Your task to perform on an android device: change the clock display to analog Image 0: 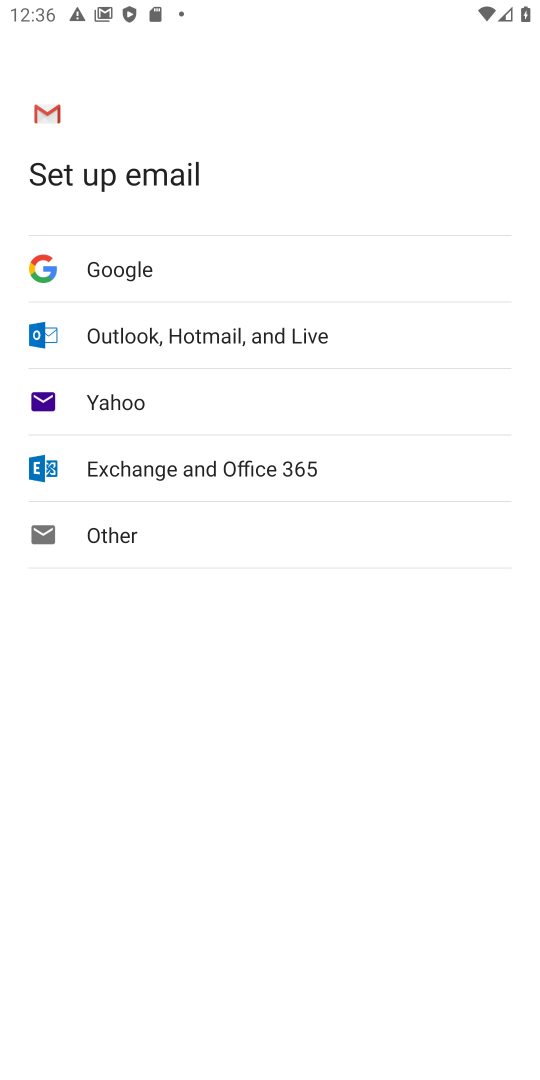
Step 0: press home button
Your task to perform on an android device: change the clock display to analog Image 1: 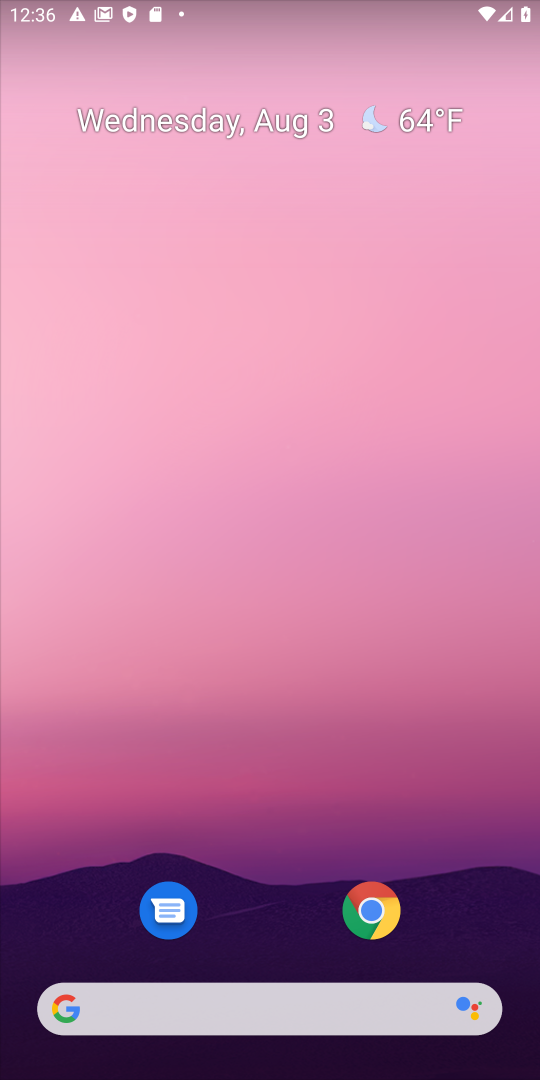
Step 1: drag from (288, 1002) to (397, 12)
Your task to perform on an android device: change the clock display to analog Image 2: 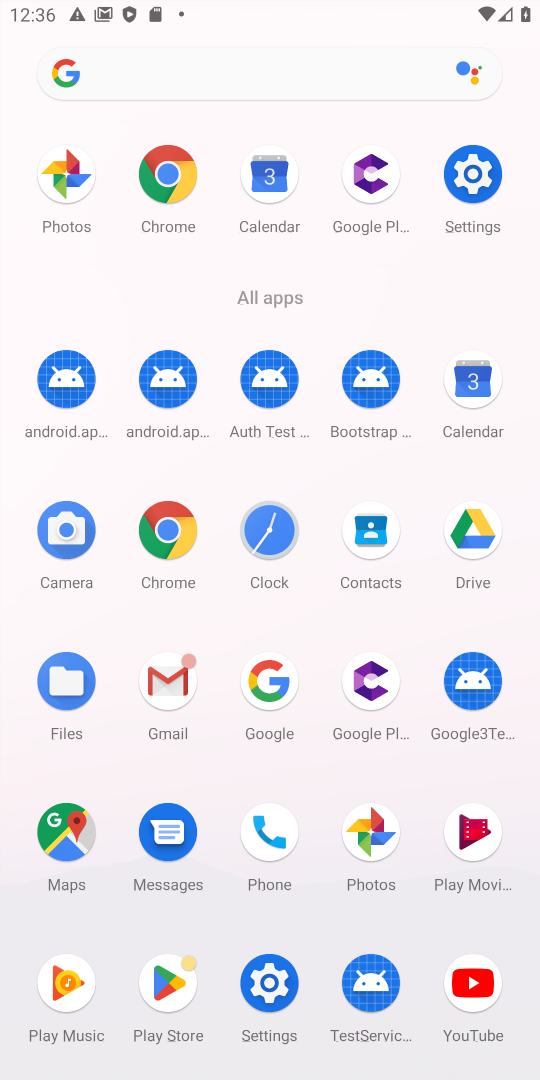
Step 2: click (267, 516)
Your task to perform on an android device: change the clock display to analog Image 3: 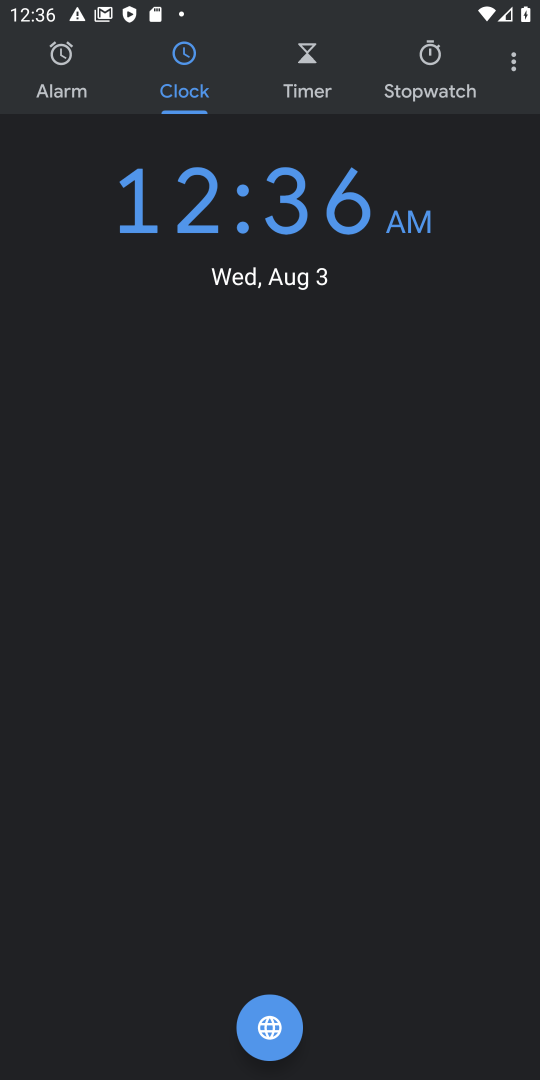
Step 3: click (514, 61)
Your task to perform on an android device: change the clock display to analog Image 4: 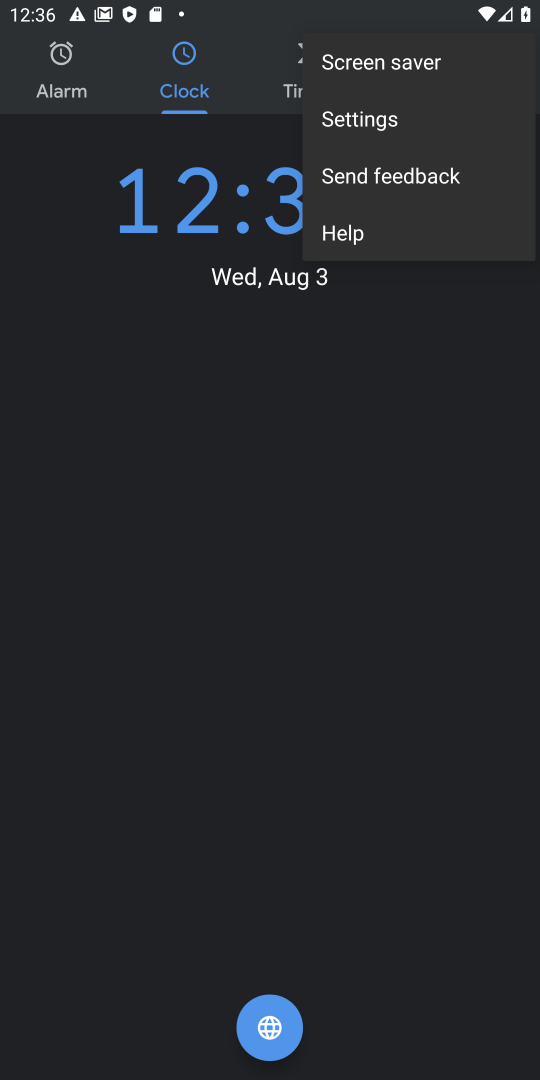
Step 4: click (381, 123)
Your task to perform on an android device: change the clock display to analog Image 5: 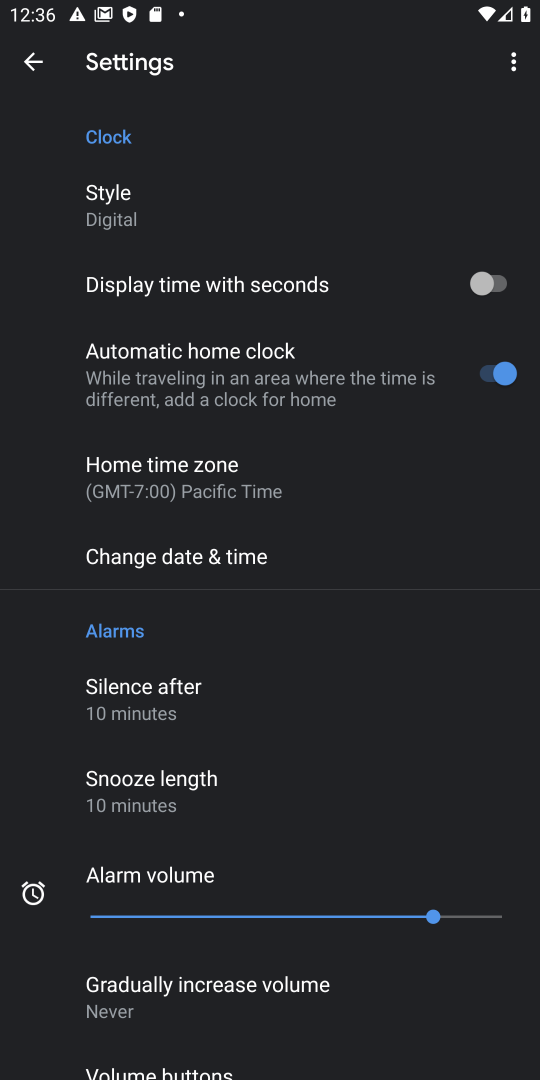
Step 5: click (188, 211)
Your task to perform on an android device: change the clock display to analog Image 6: 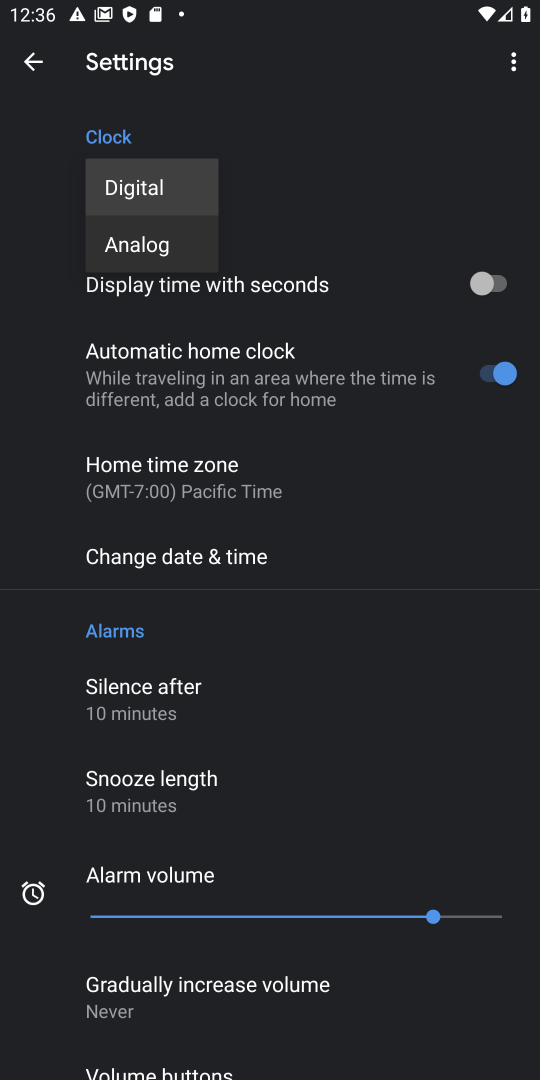
Step 6: click (133, 238)
Your task to perform on an android device: change the clock display to analog Image 7: 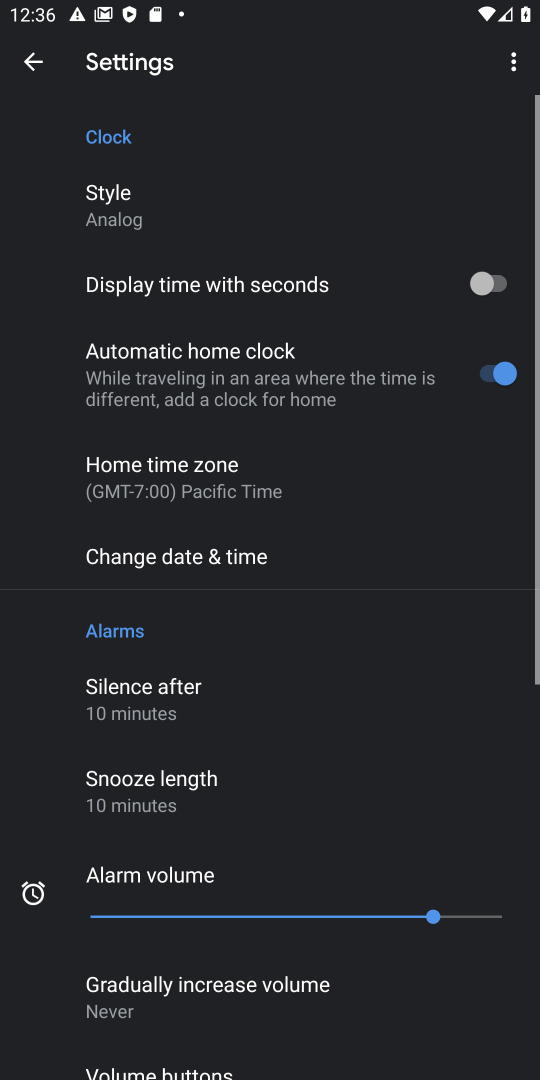
Step 7: task complete